Your task to perform on an android device: check google app version Image 0: 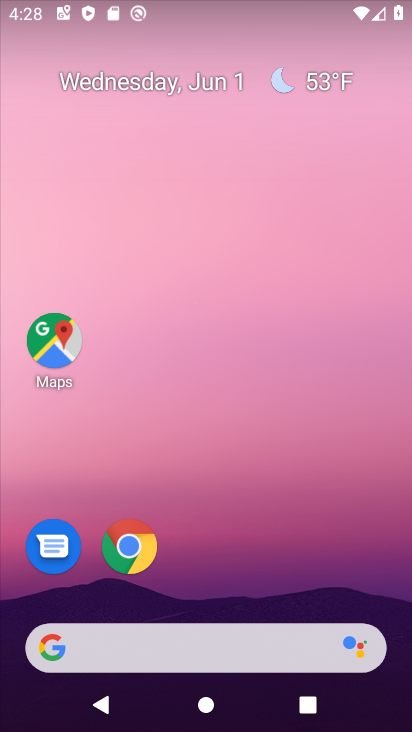
Step 0: drag from (271, 541) to (114, 132)
Your task to perform on an android device: check google app version Image 1: 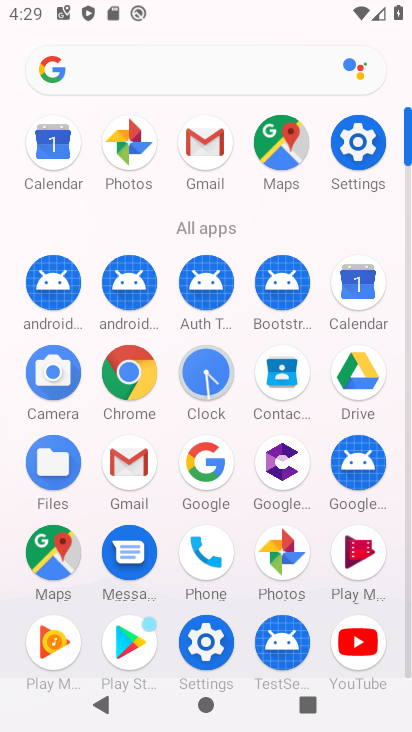
Step 1: click (202, 466)
Your task to perform on an android device: check google app version Image 2: 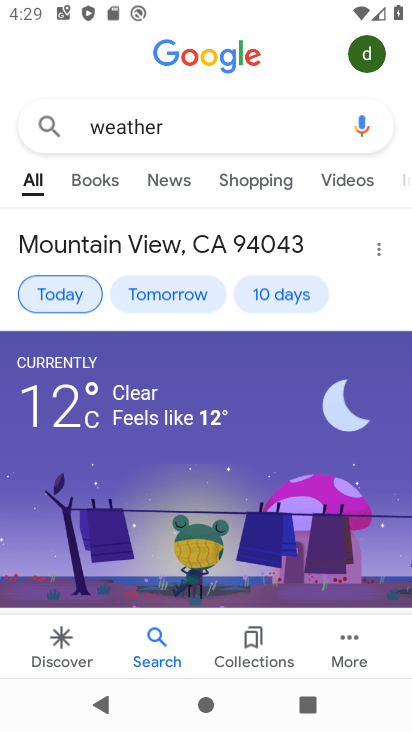
Step 2: click (350, 641)
Your task to perform on an android device: check google app version Image 3: 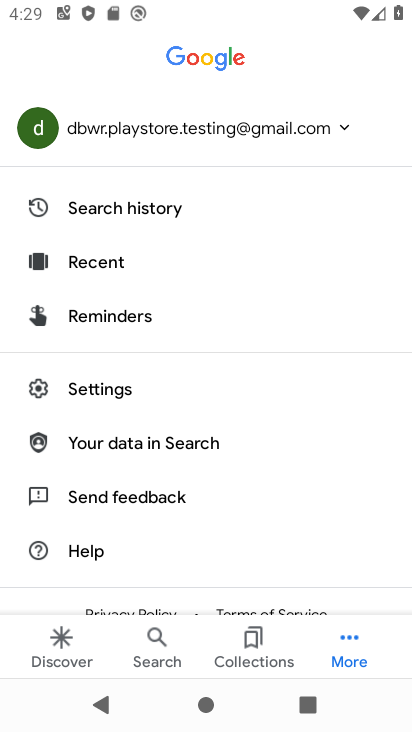
Step 3: click (101, 390)
Your task to perform on an android device: check google app version Image 4: 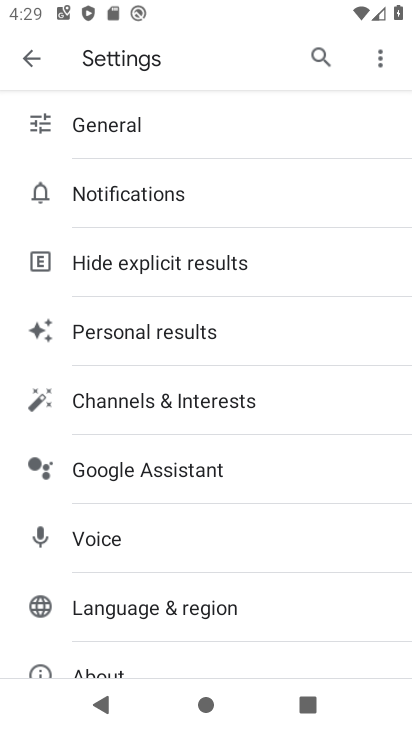
Step 4: drag from (196, 494) to (103, 134)
Your task to perform on an android device: check google app version Image 5: 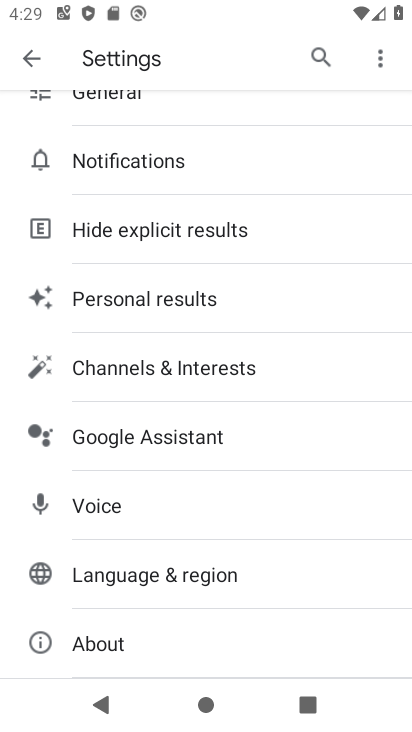
Step 5: click (111, 636)
Your task to perform on an android device: check google app version Image 6: 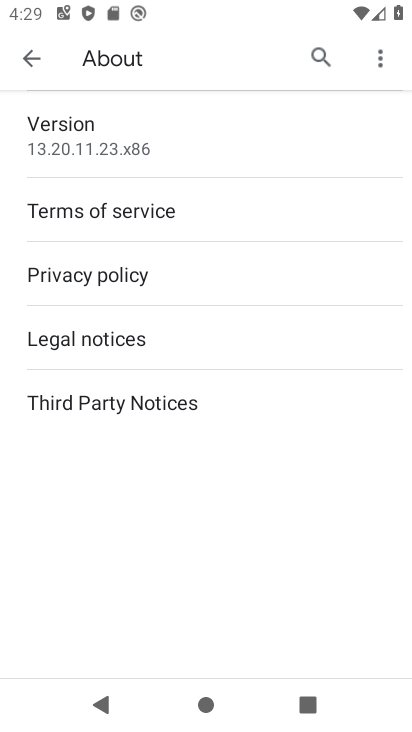
Step 6: task complete